Your task to perform on an android device: open app "Flipkart Online Shopping App" Image 0: 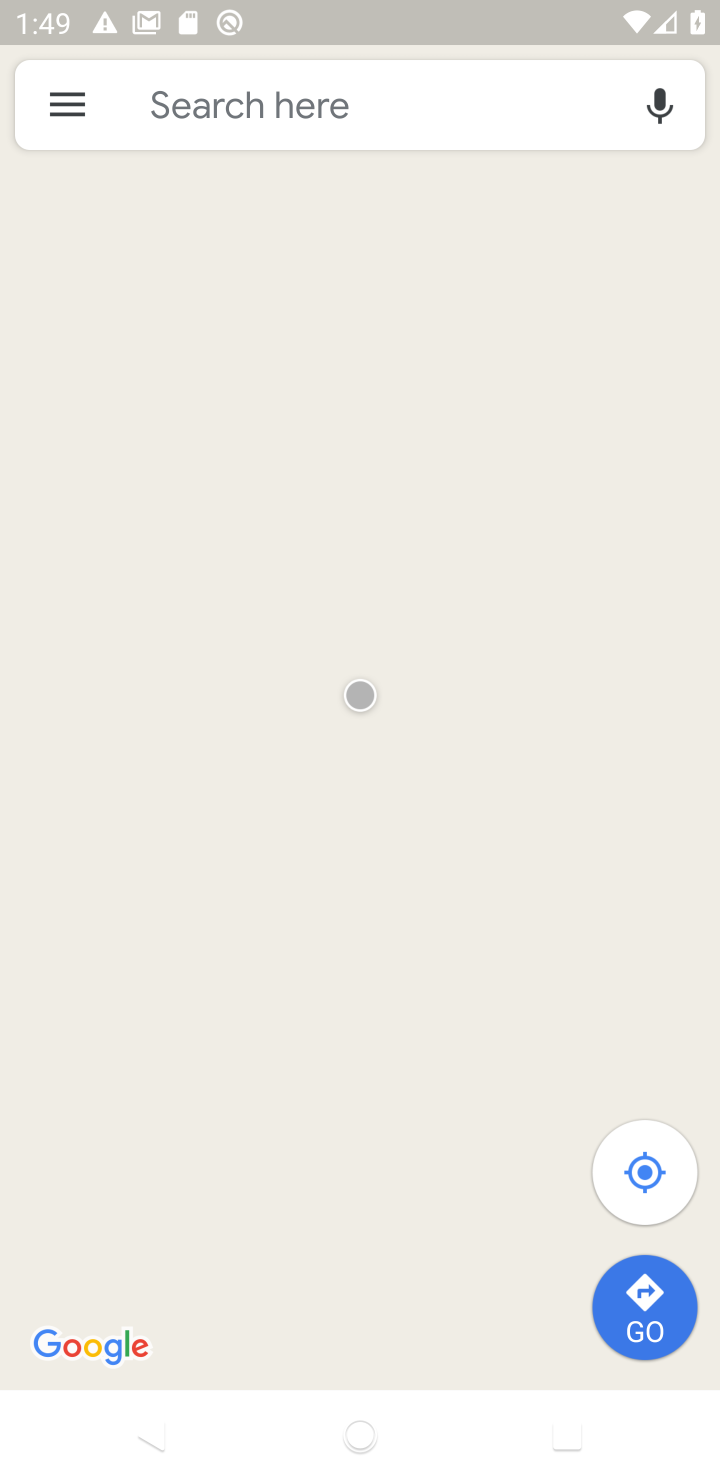
Step 0: press home button
Your task to perform on an android device: open app "Flipkart Online Shopping App" Image 1: 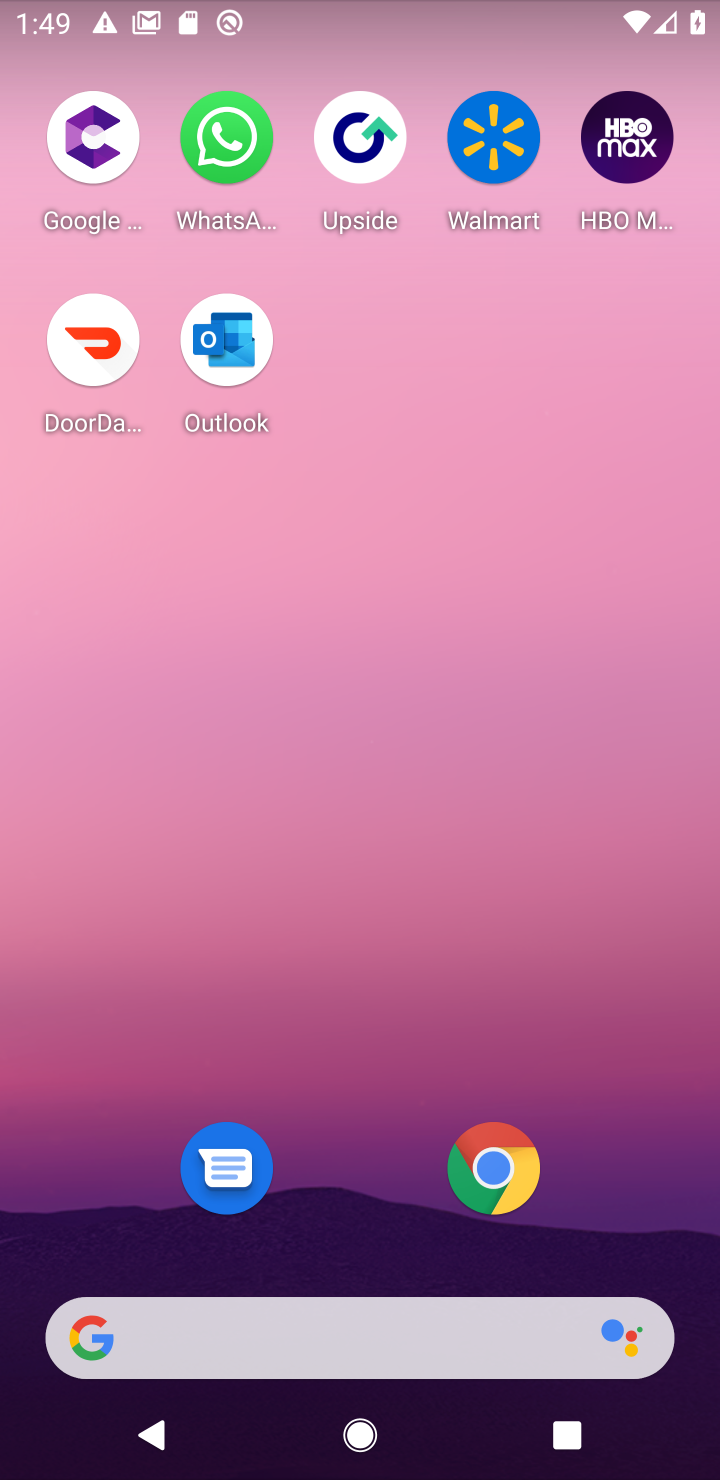
Step 1: drag from (380, 1297) to (255, 439)
Your task to perform on an android device: open app "Flipkart Online Shopping App" Image 2: 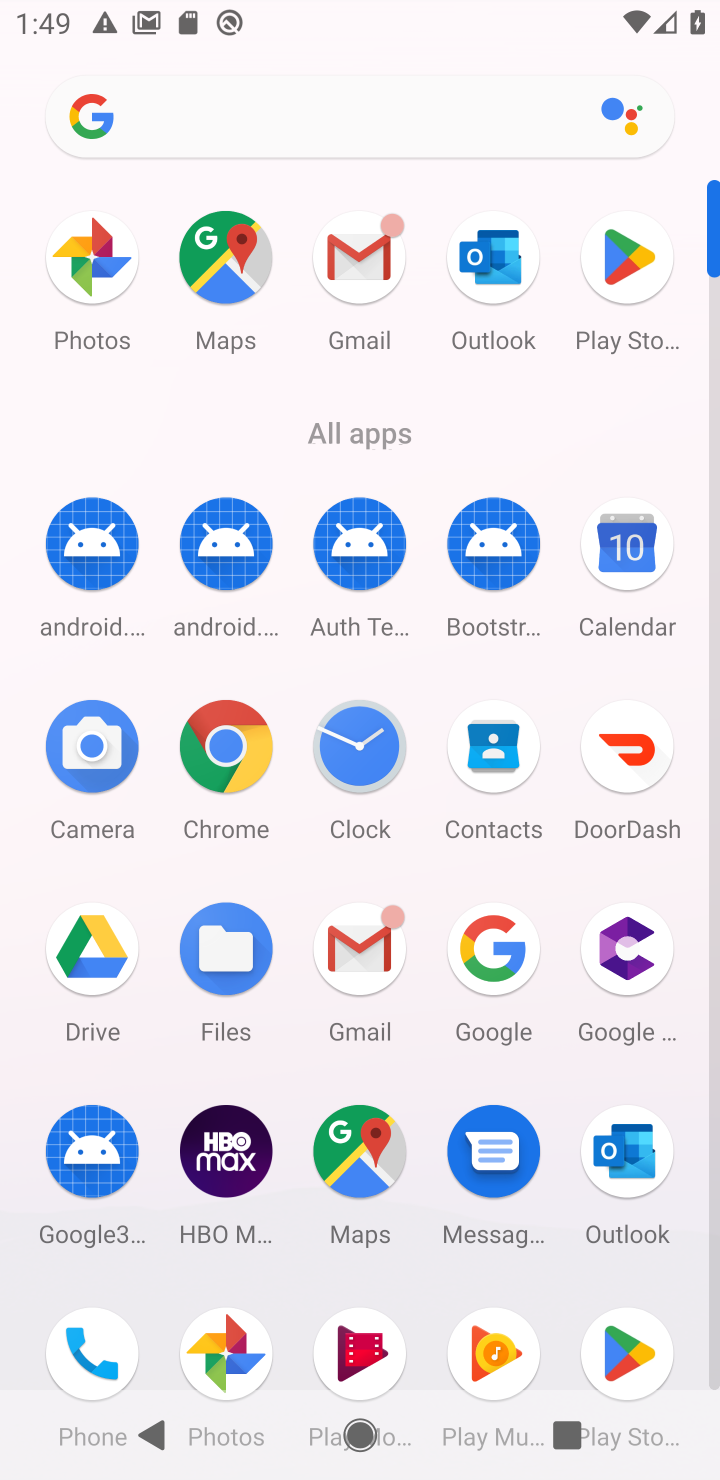
Step 2: click (624, 277)
Your task to perform on an android device: open app "Flipkart Online Shopping App" Image 3: 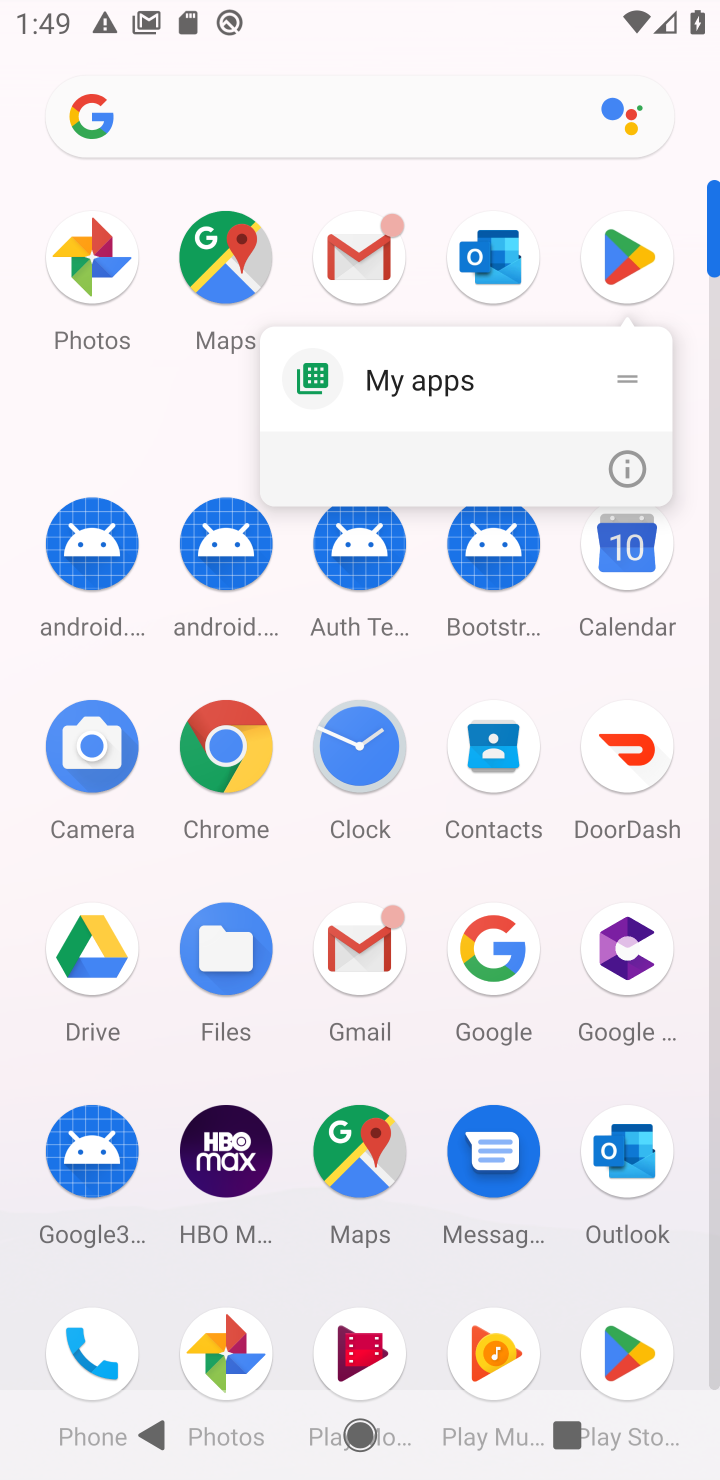
Step 3: click (630, 262)
Your task to perform on an android device: open app "Flipkart Online Shopping App" Image 4: 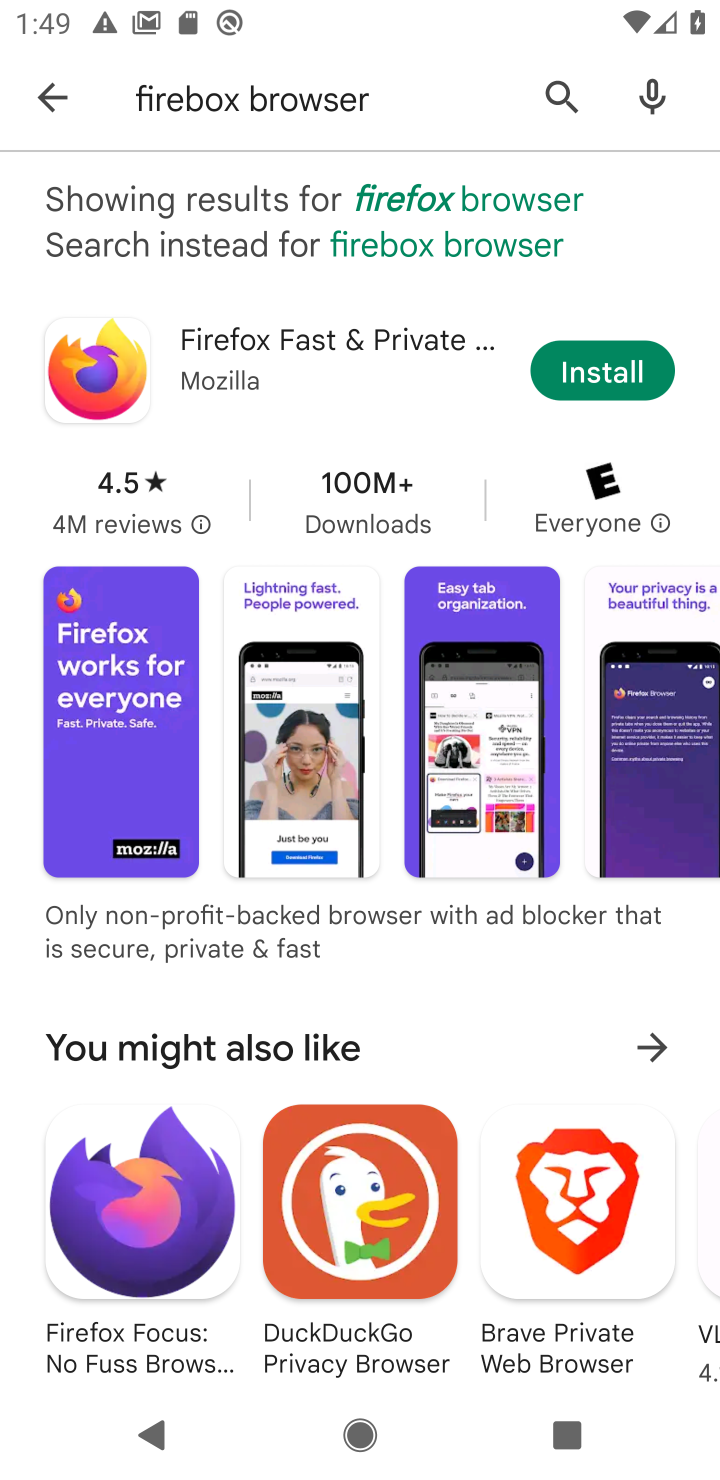
Step 4: press back button
Your task to perform on an android device: open app "Flipkart Online Shopping App" Image 5: 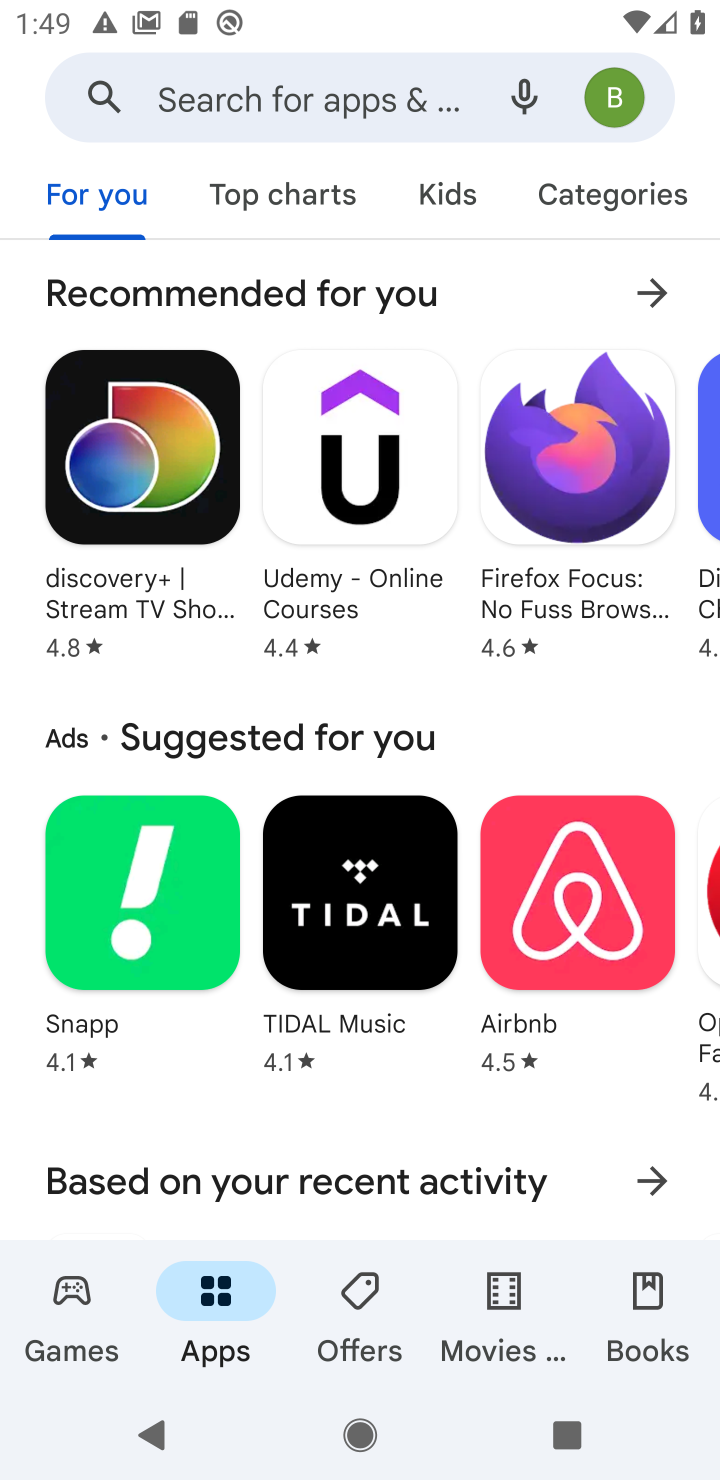
Step 5: click (248, 90)
Your task to perform on an android device: open app "Flipkart Online Shopping App" Image 6: 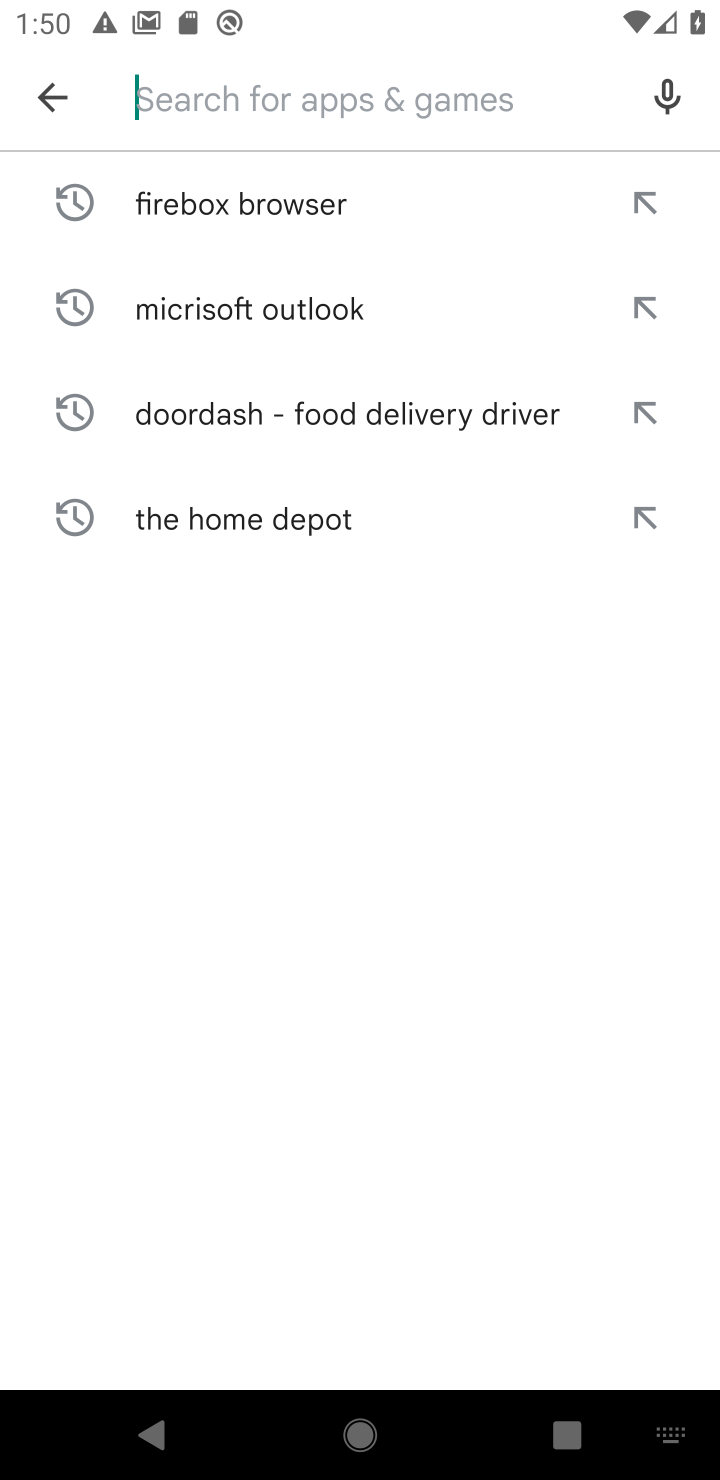
Step 6: type "Flipkart Online Shopping App"
Your task to perform on an android device: open app "Flipkart Online Shopping App" Image 7: 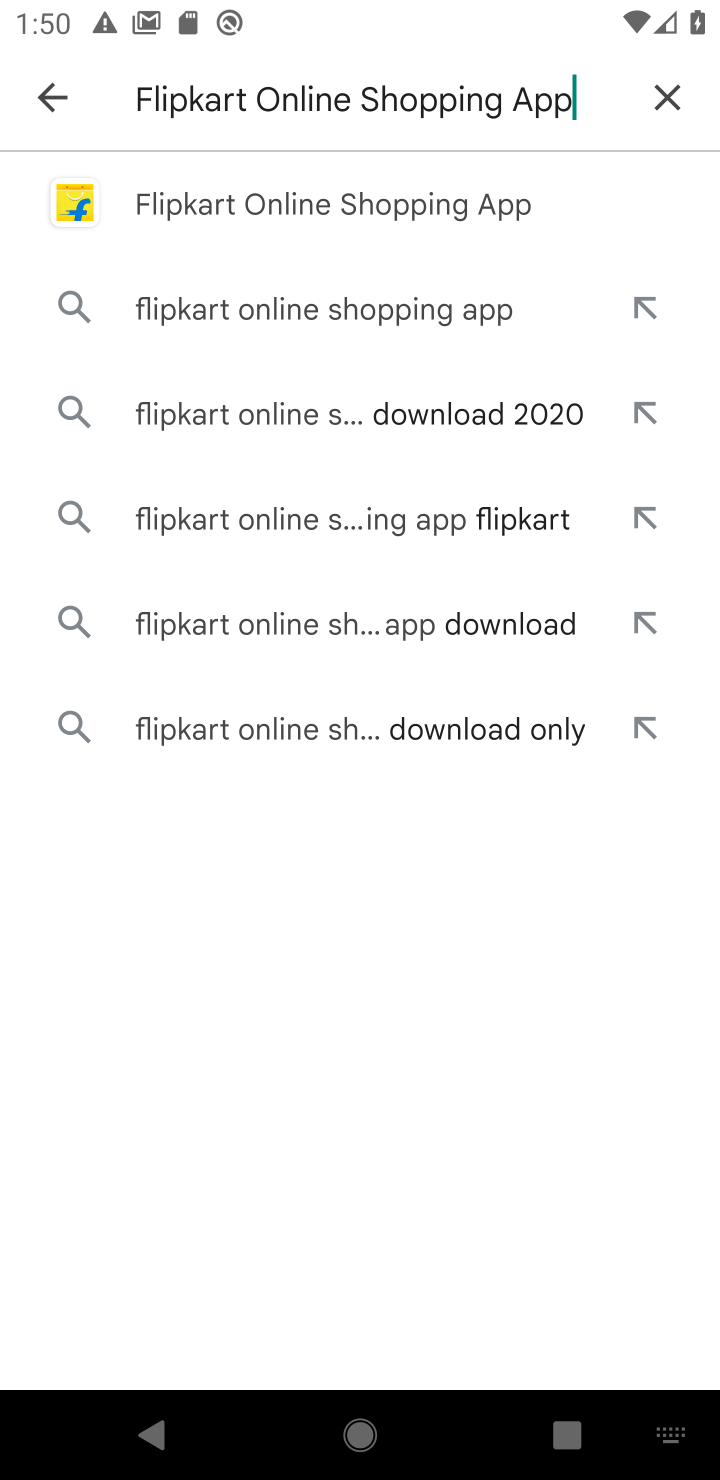
Step 7: click (368, 208)
Your task to perform on an android device: open app "Flipkart Online Shopping App" Image 8: 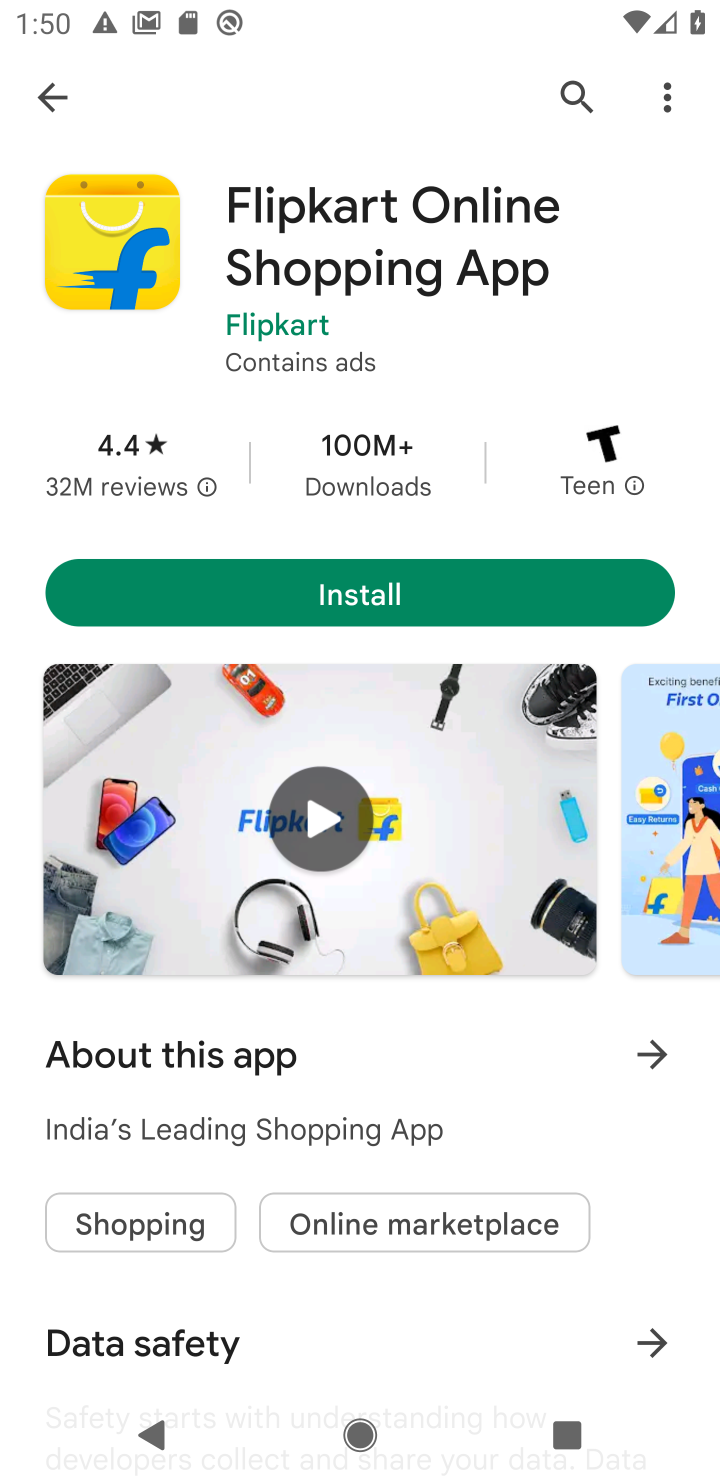
Step 8: task complete